Your task to perform on an android device: Find coffee shops on Maps Image 0: 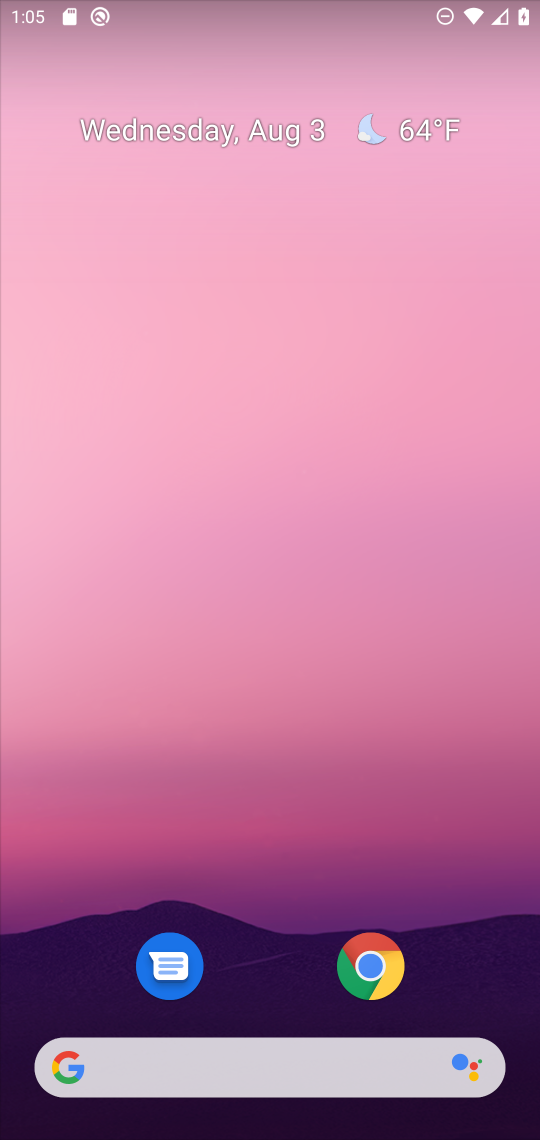
Step 0: drag from (303, 963) to (303, 305)
Your task to perform on an android device: Find coffee shops on Maps Image 1: 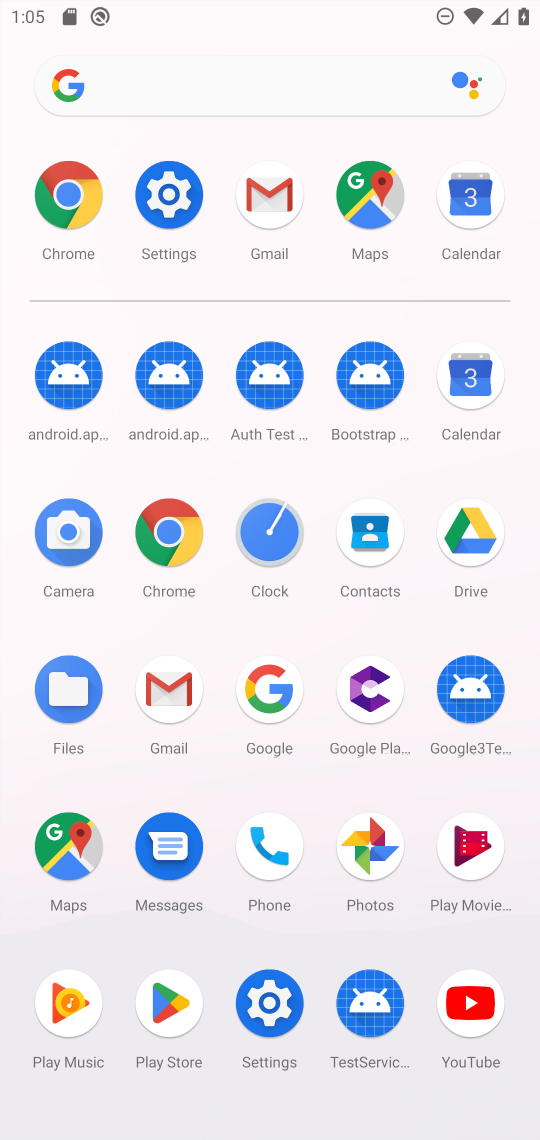
Step 1: click (366, 224)
Your task to perform on an android device: Find coffee shops on Maps Image 2: 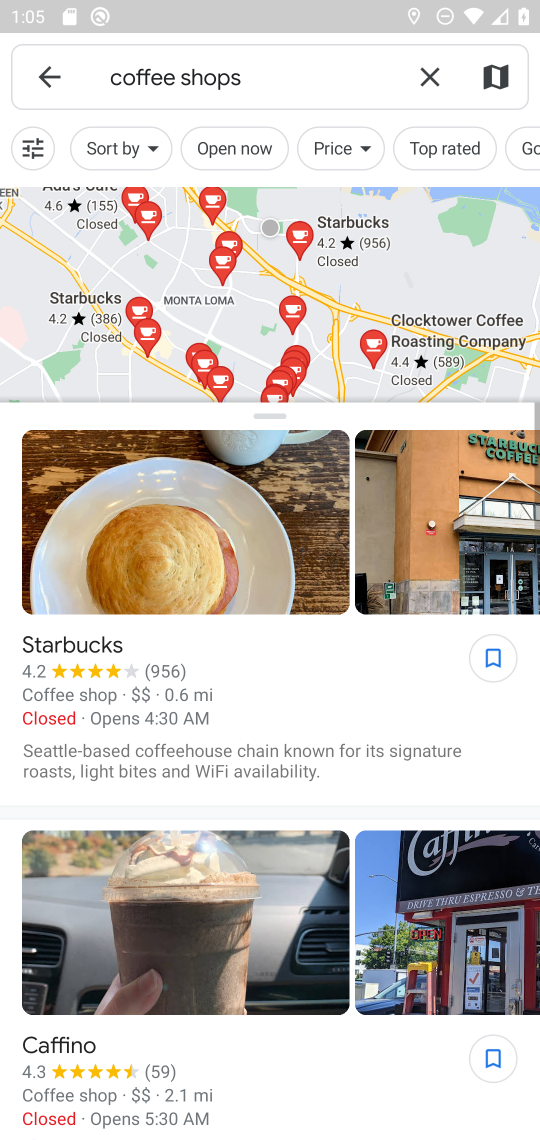
Step 2: task complete